Your task to perform on an android device: toggle location history Image 0: 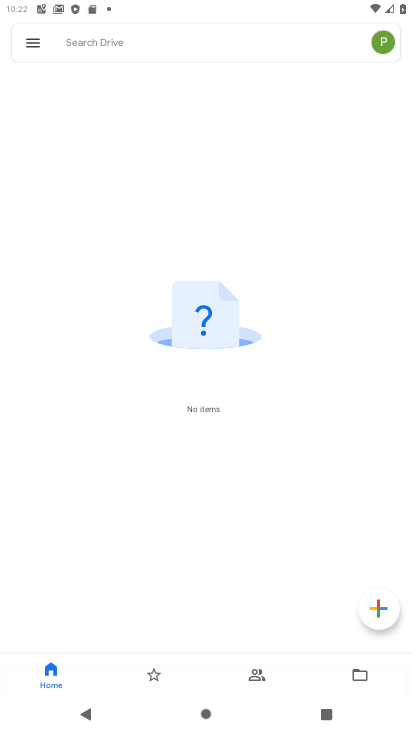
Step 0: click (287, 602)
Your task to perform on an android device: toggle location history Image 1: 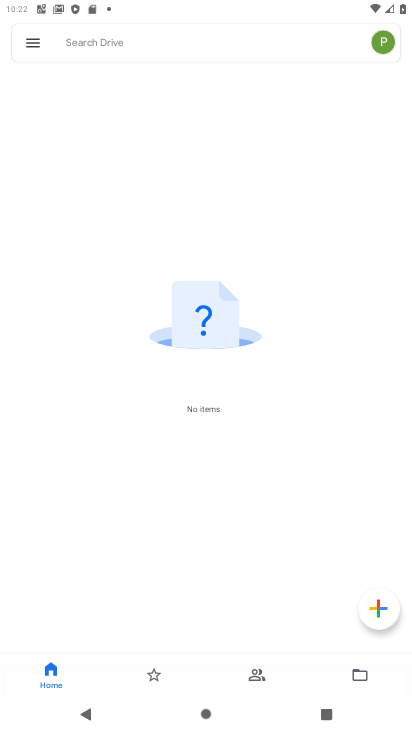
Step 1: drag from (292, 595) to (313, 545)
Your task to perform on an android device: toggle location history Image 2: 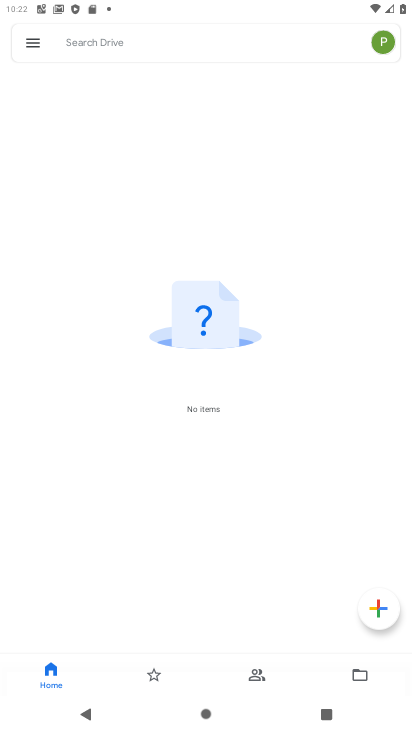
Step 2: press home button
Your task to perform on an android device: toggle location history Image 3: 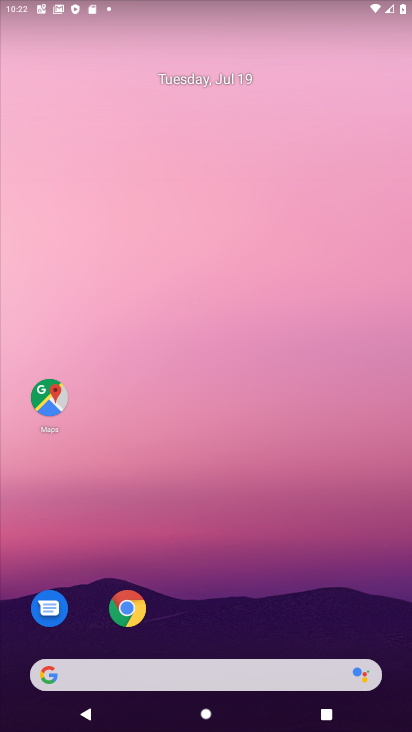
Step 3: drag from (327, 604) to (306, 98)
Your task to perform on an android device: toggle location history Image 4: 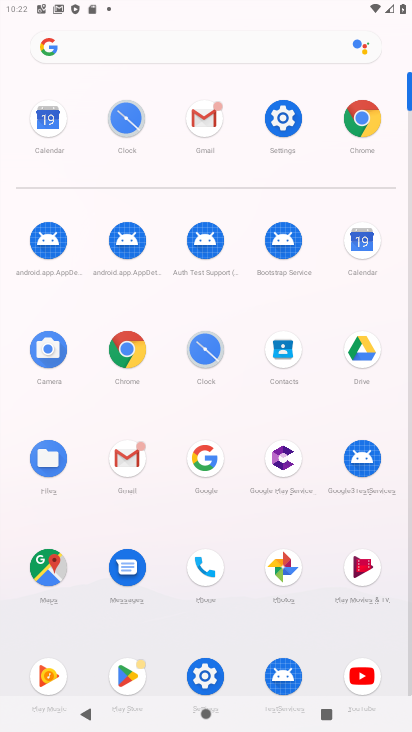
Step 4: click (281, 112)
Your task to perform on an android device: toggle location history Image 5: 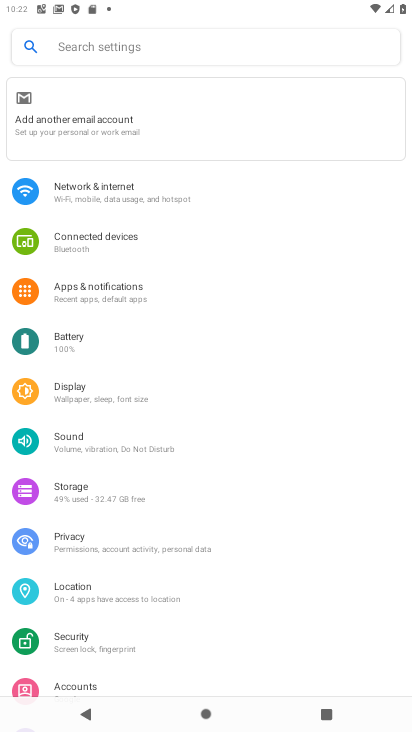
Step 5: click (92, 588)
Your task to perform on an android device: toggle location history Image 6: 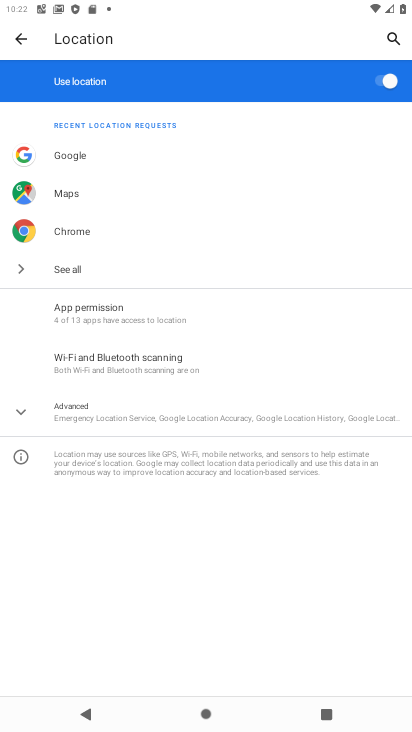
Step 6: click (125, 408)
Your task to perform on an android device: toggle location history Image 7: 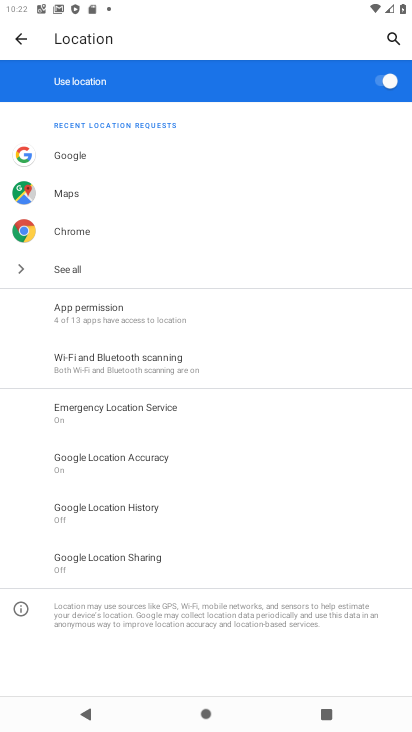
Step 7: click (142, 507)
Your task to perform on an android device: toggle location history Image 8: 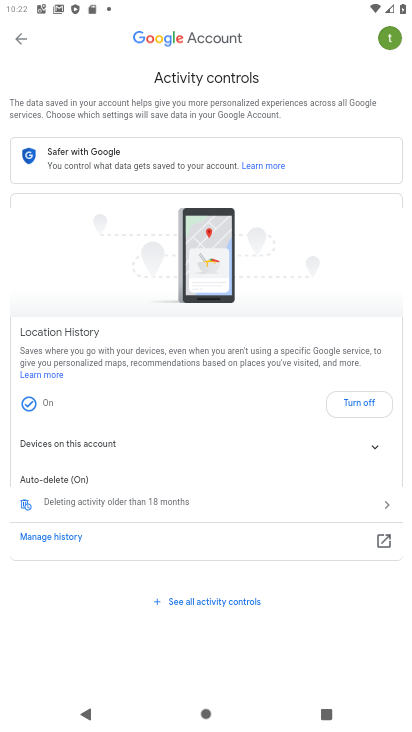
Step 8: click (362, 397)
Your task to perform on an android device: toggle location history Image 9: 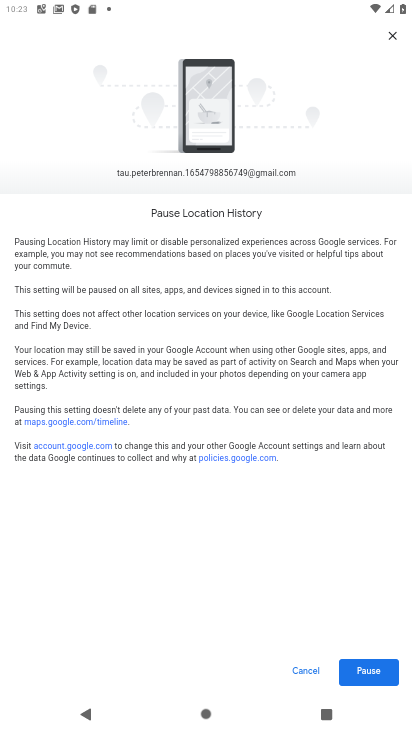
Step 9: click (377, 670)
Your task to perform on an android device: toggle location history Image 10: 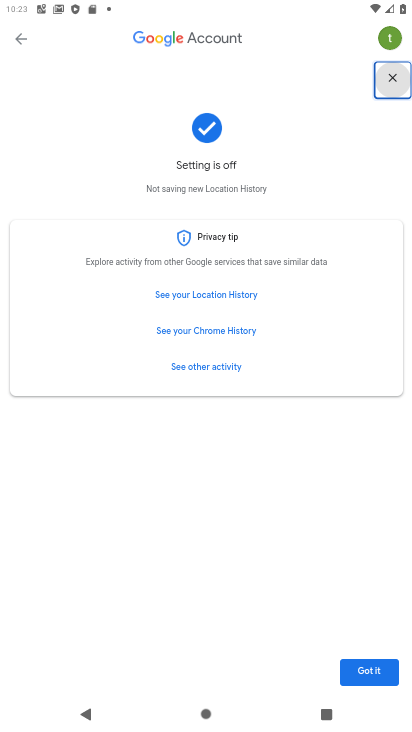
Step 10: task complete